Your task to perform on an android device: Go to settings Image 0: 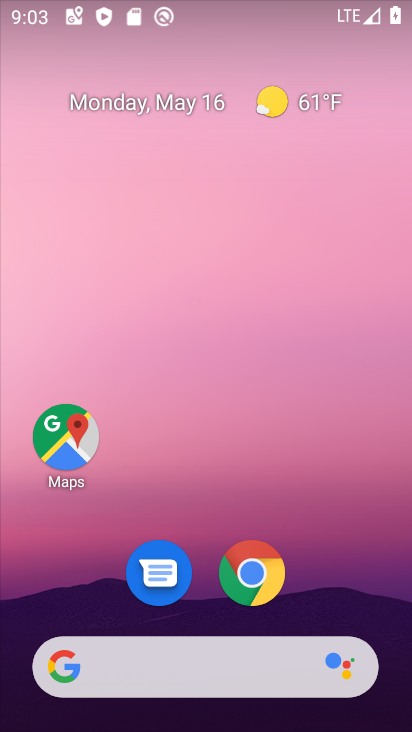
Step 0: drag from (184, 717) to (191, 107)
Your task to perform on an android device: Go to settings Image 1: 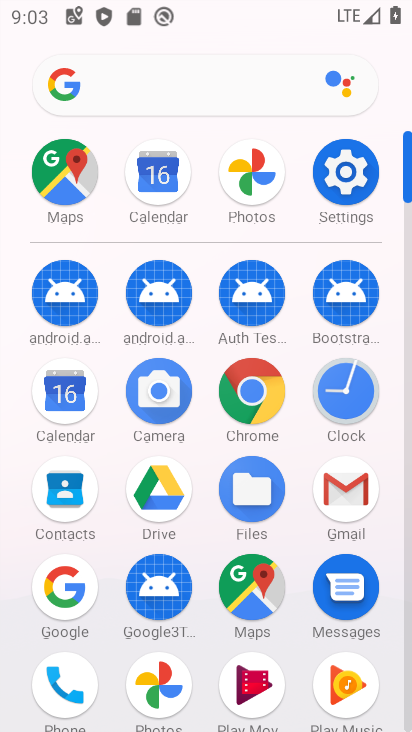
Step 1: click (356, 175)
Your task to perform on an android device: Go to settings Image 2: 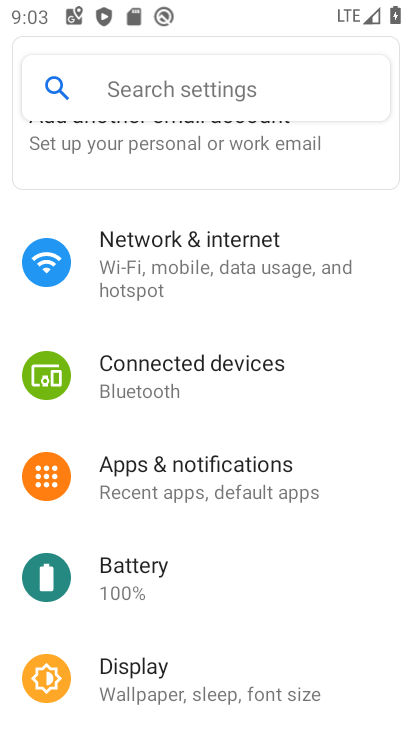
Step 2: task complete